Your task to perform on an android device: install app "Google News" Image 0: 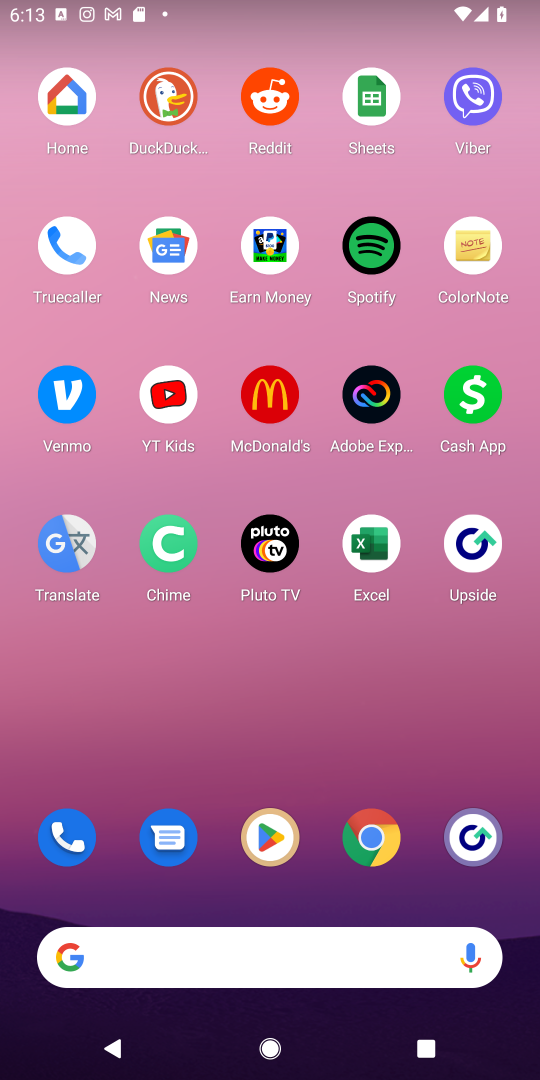
Step 0: press home button
Your task to perform on an android device: install app "Google News" Image 1: 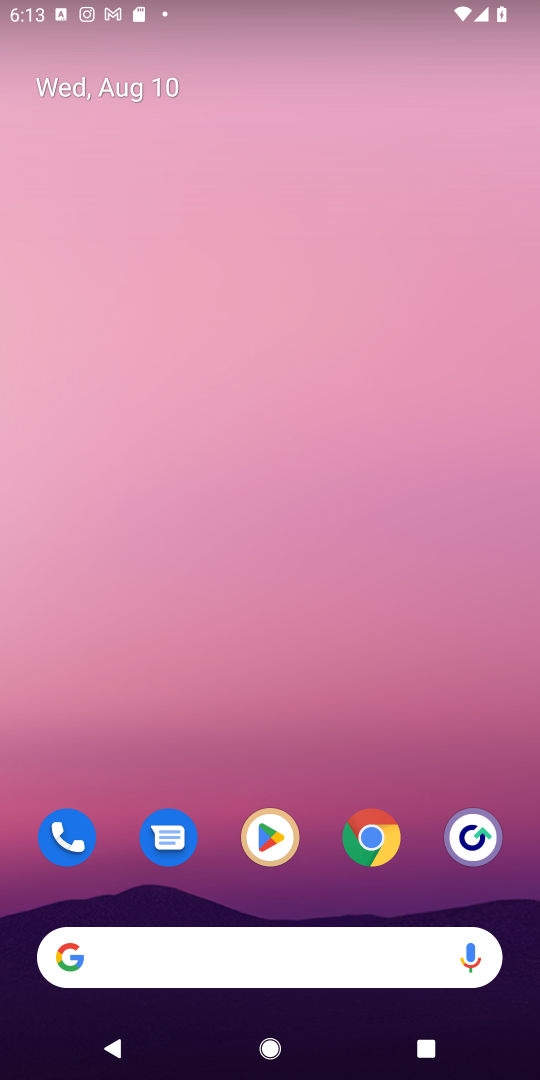
Step 1: click (274, 833)
Your task to perform on an android device: install app "Google News" Image 2: 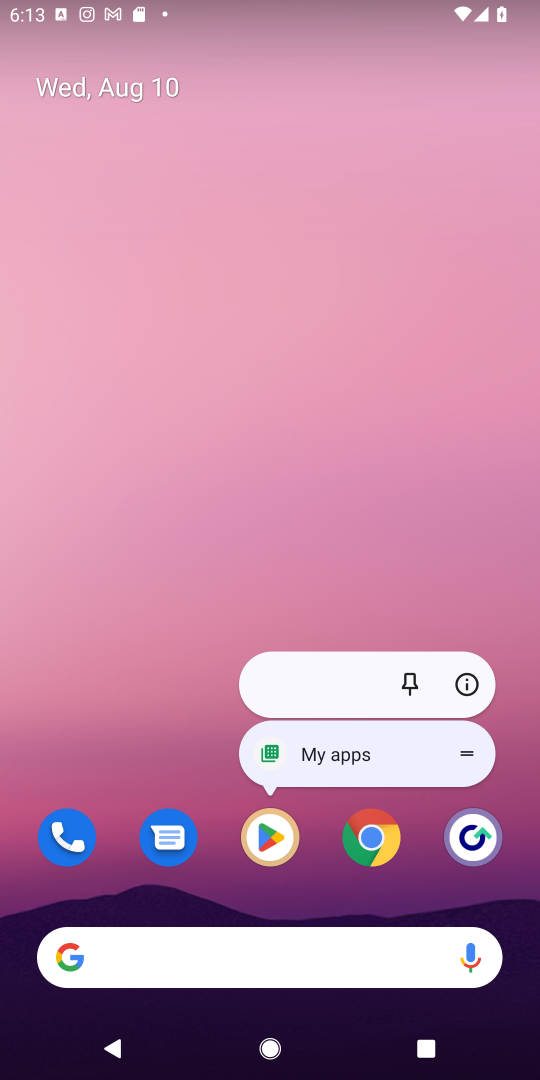
Step 2: click (274, 832)
Your task to perform on an android device: install app "Google News" Image 3: 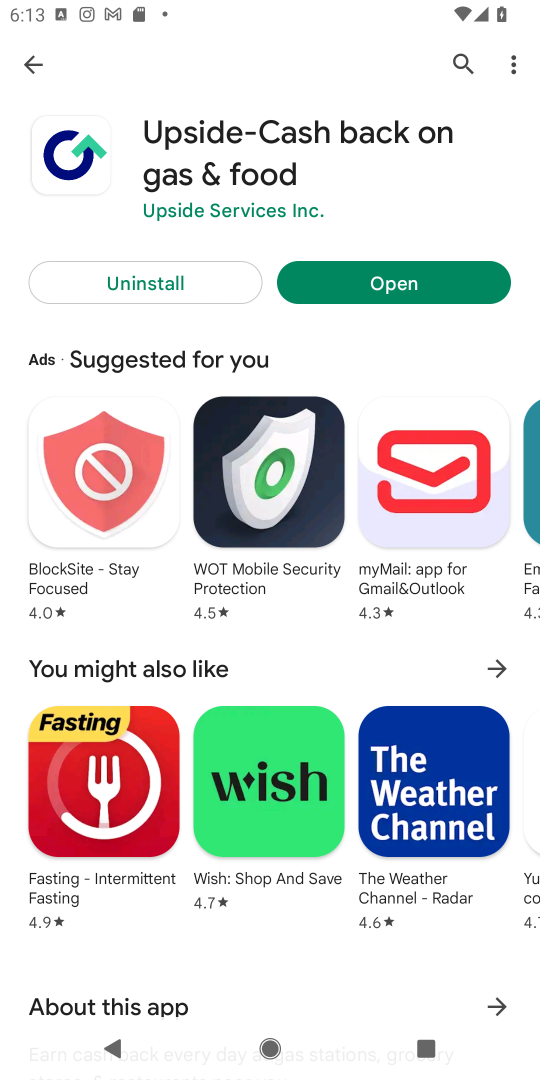
Step 3: click (457, 61)
Your task to perform on an android device: install app "Google News" Image 4: 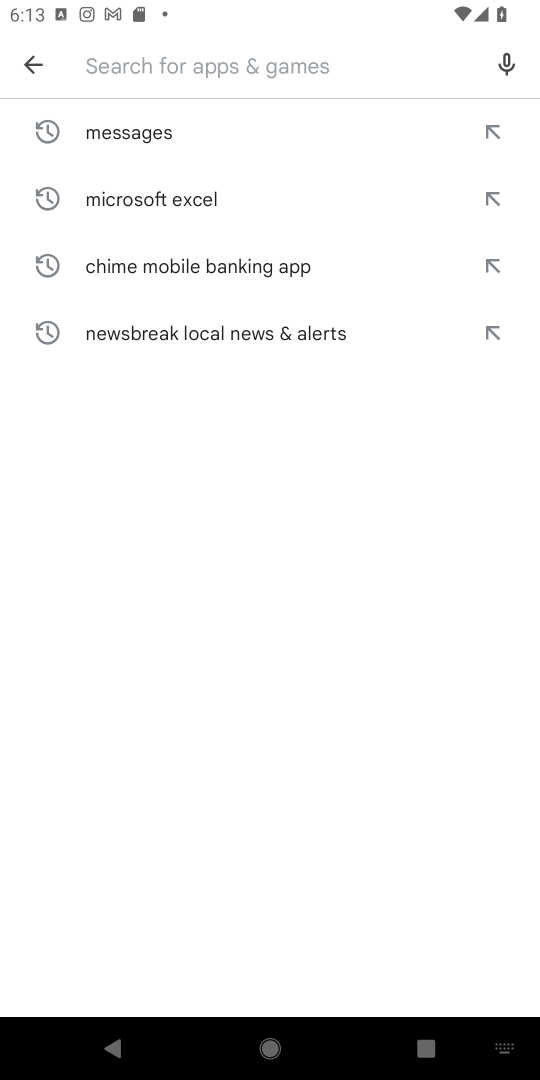
Step 4: type "Google News"
Your task to perform on an android device: install app "Google News" Image 5: 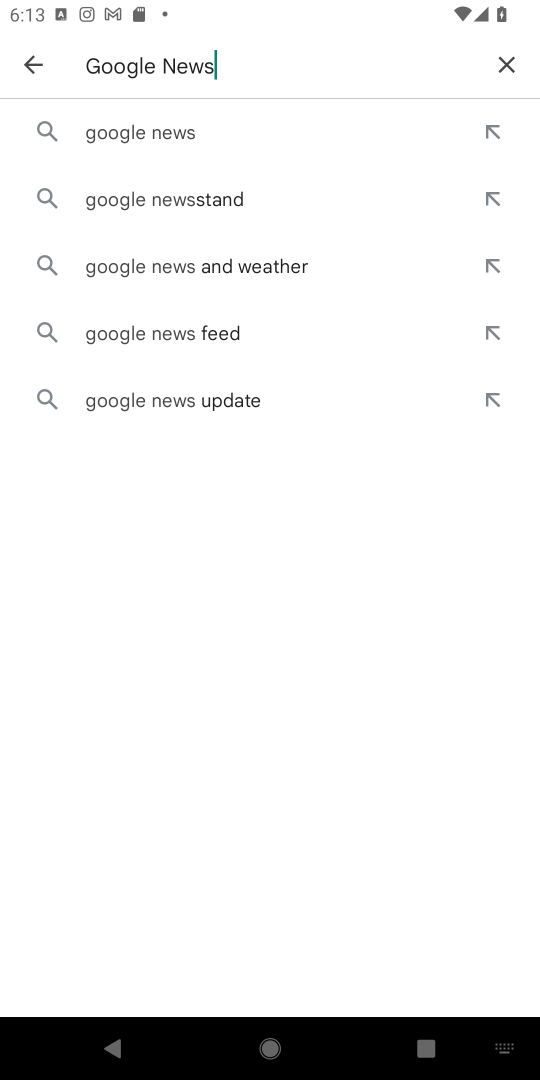
Step 5: click (189, 135)
Your task to perform on an android device: install app "Google News" Image 6: 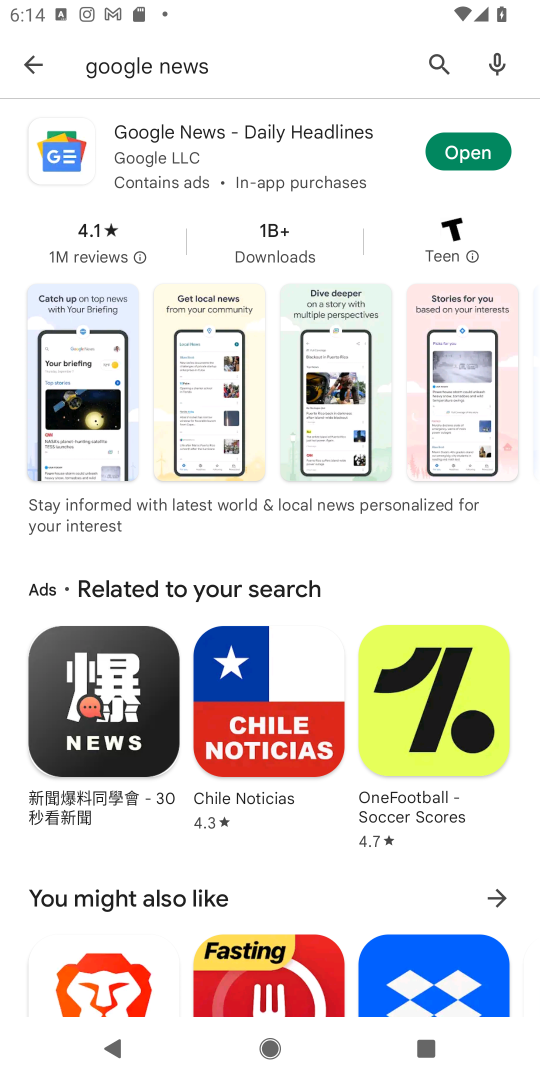
Step 6: task complete